Your task to perform on an android device: find which apps use the phone's location Image 0: 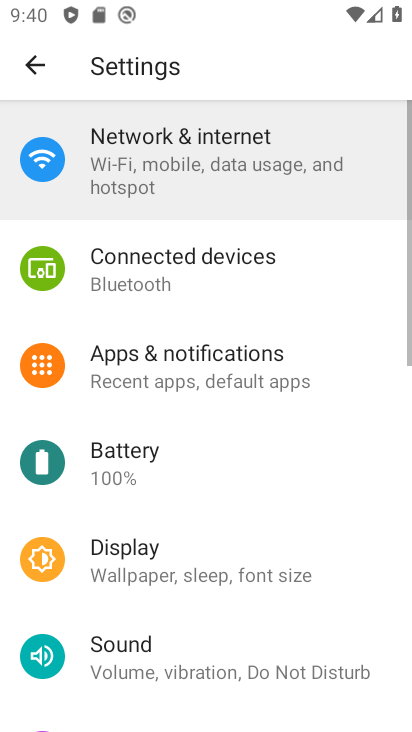
Step 0: press home button
Your task to perform on an android device: find which apps use the phone's location Image 1: 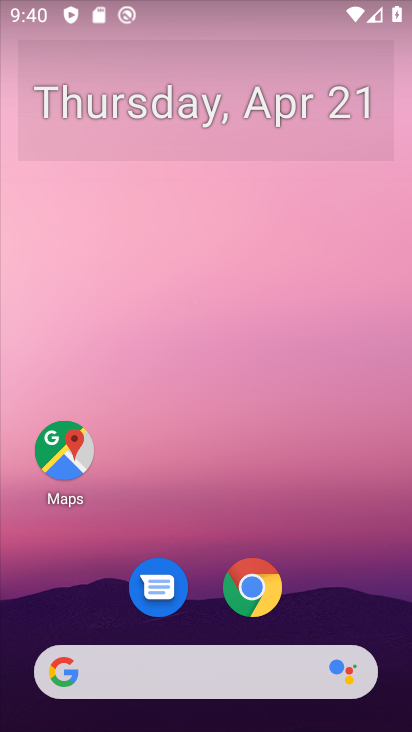
Step 1: drag from (360, 602) to (361, 179)
Your task to perform on an android device: find which apps use the phone's location Image 2: 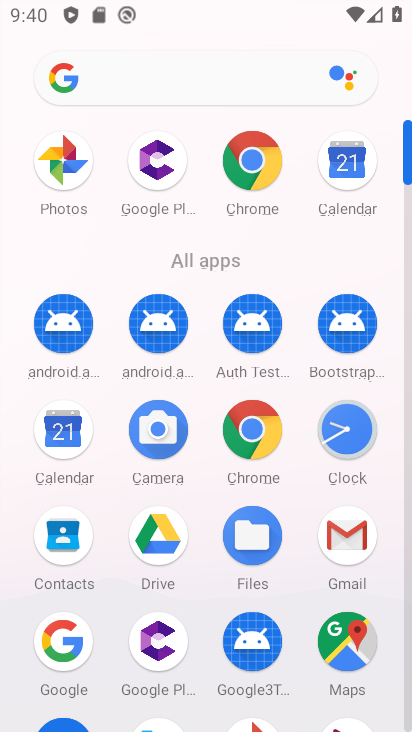
Step 2: drag from (390, 496) to (403, 168)
Your task to perform on an android device: find which apps use the phone's location Image 3: 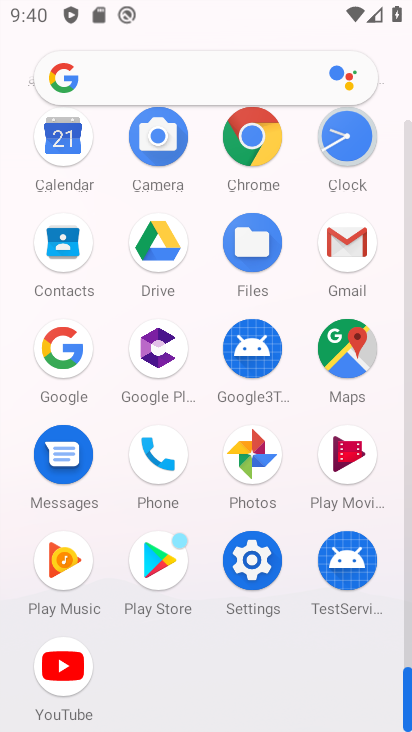
Step 3: click (263, 565)
Your task to perform on an android device: find which apps use the phone's location Image 4: 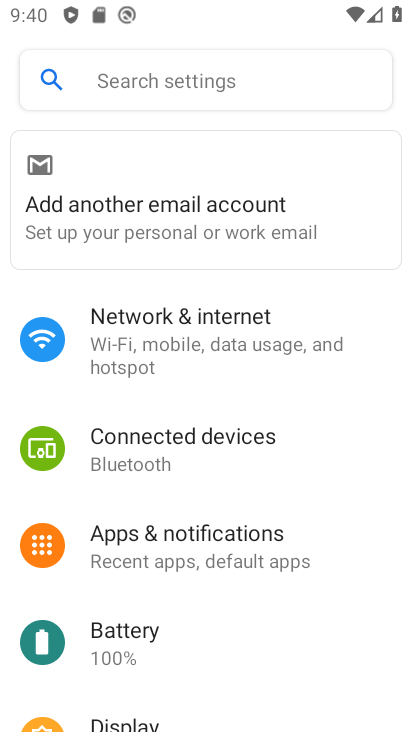
Step 4: drag from (350, 630) to (366, 391)
Your task to perform on an android device: find which apps use the phone's location Image 5: 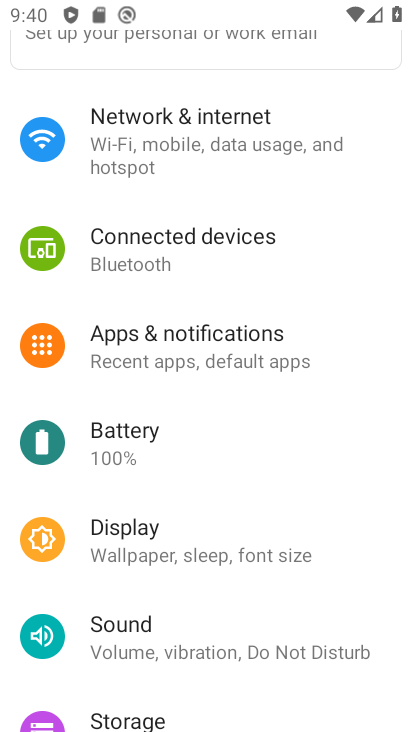
Step 5: drag from (367, 601) to (369, 403)
Your task to perform on an android device: find which apps use the phone's location Image 6: 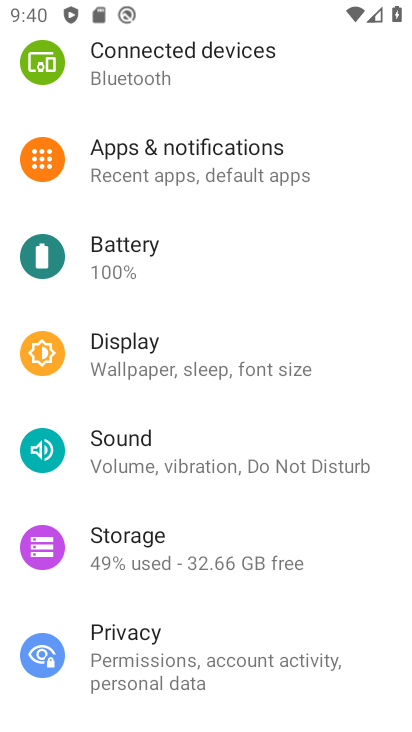
Step 6: drag from (355, 563) to (375, 323)
Your task to perform on an android device: find which apps use the phone's location Image 7: 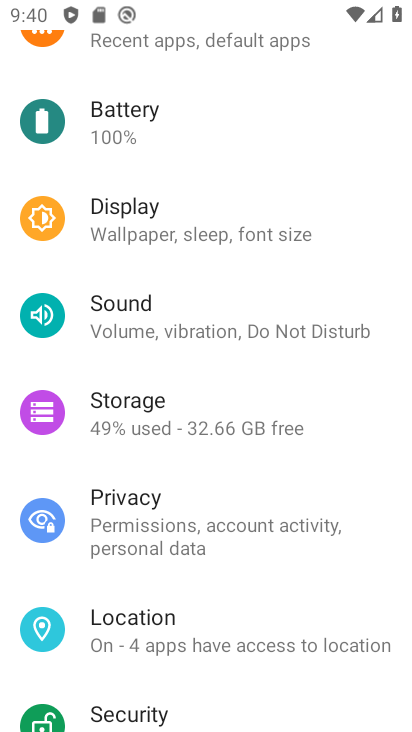
Step 7: drag from (370, 501) to (381, 275)
Your task to perform on an android device: find which apps use the phone's location Image 8: 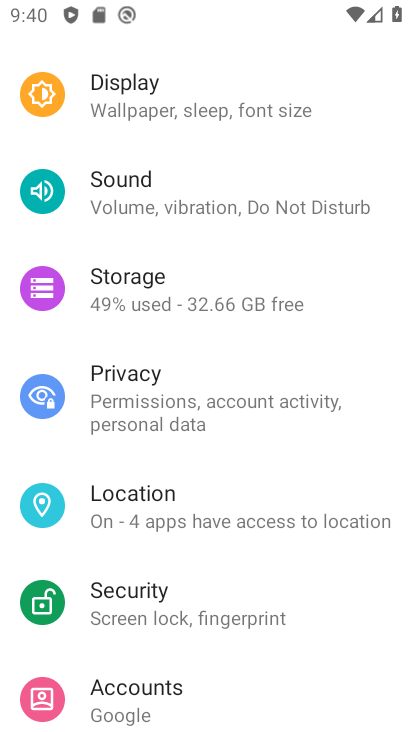
Step 8: click (157, 495)
Your task to perform on an android device: find which apps use the phone's location Image 9: 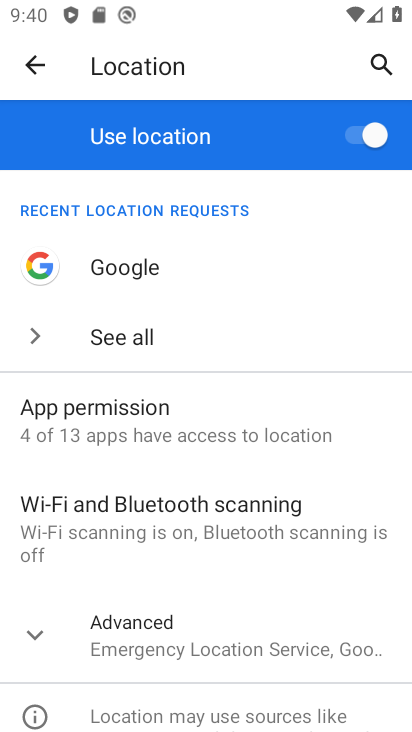
Step 9: click (170, 428)
Your task to perform on an android device: find which apps use the phone's location Image 10: 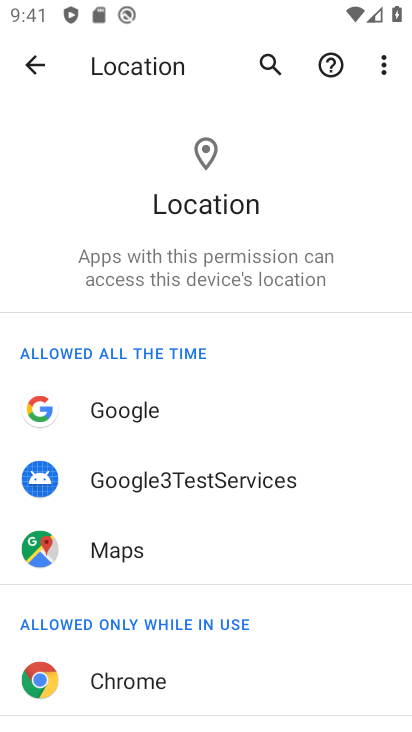
Step 10: drag from (340, 587) to (357, 319)
Your task to perform on an android device: find which apps use the phone's location Image 11: 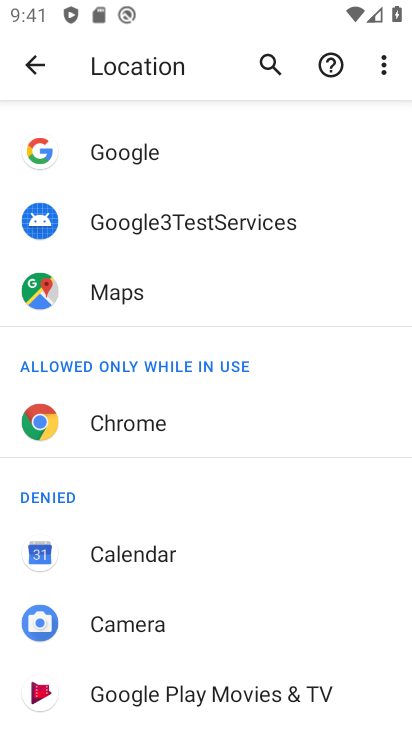
Step 11: drag from (300, 536) to (310, 241)
Your task to perform on an android device: find which apps use the phone's location Image 12: 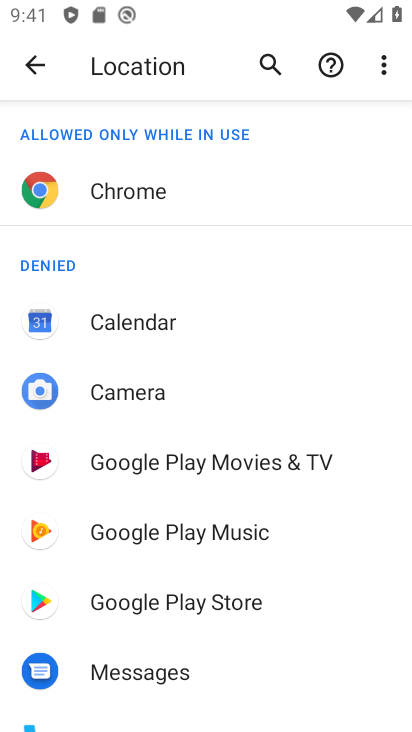
Step 12: drag from (304, 585) to (325, 280)
Your task to perform on an android device: find which apps use the phone's location Image 13: 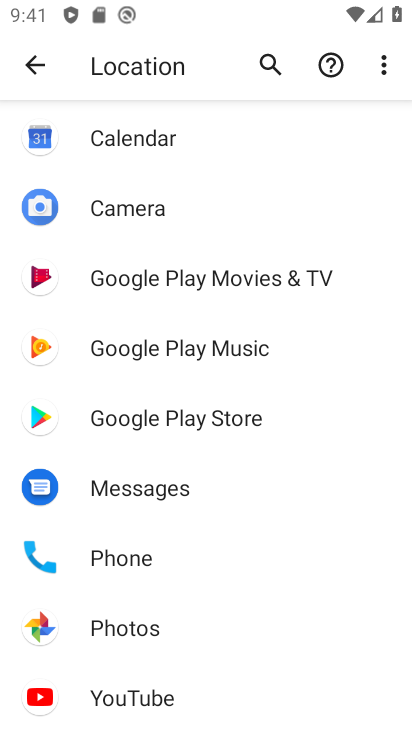
Step 13: click (132, 629)
Your task to perform on an android device: find which apps use the phone's location Image 14: 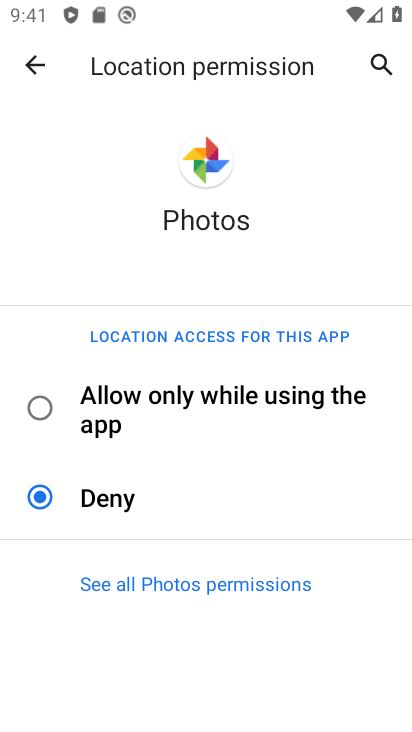
Step 14: click (71, 405)
Your task to perform on an android device: find which apps use the phone's location Image 15: 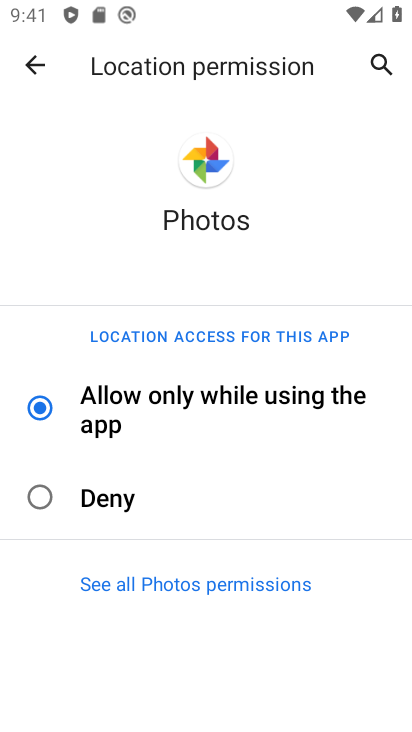
Step 15: task complete